Your task to perform on an android device: turn off picture-in-picture Image 0: 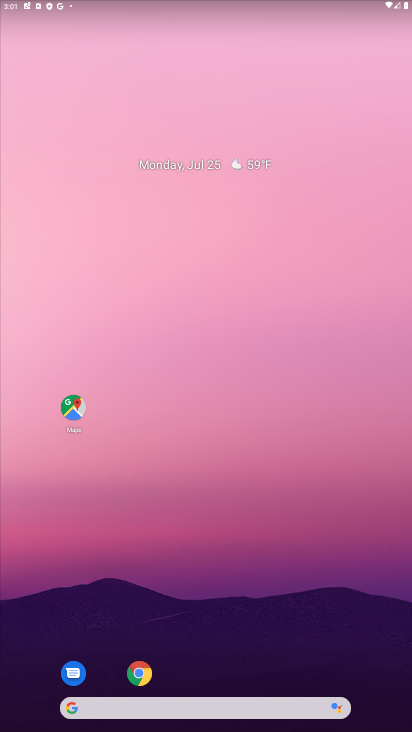
Step 0: click (141, 672)
Your task to perform on an android device: turn off picture-in-picture Image 1: 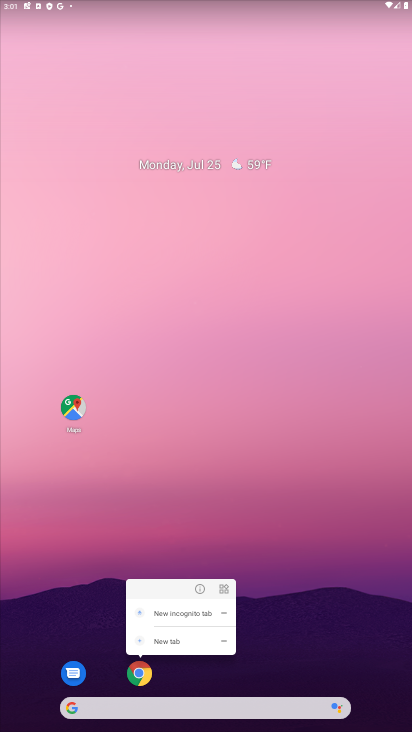
Step 1: click (201, 589)
Your task to perform on an android device: turn off picture-in-picture Image 2: 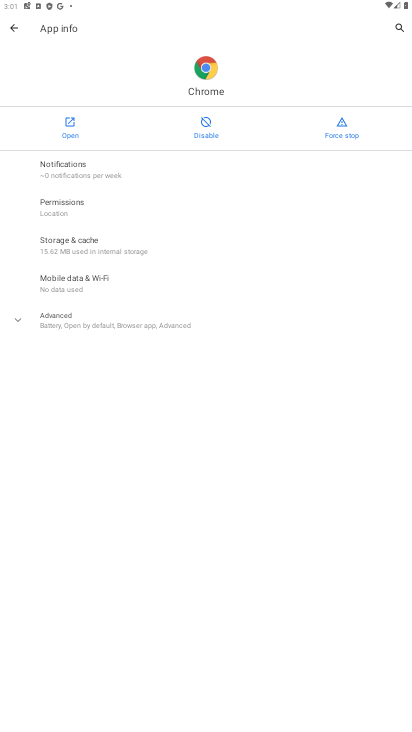
Step 2: click (85, 310)
Your task to perform on an android device: turn off picture-in-picture Image 3: 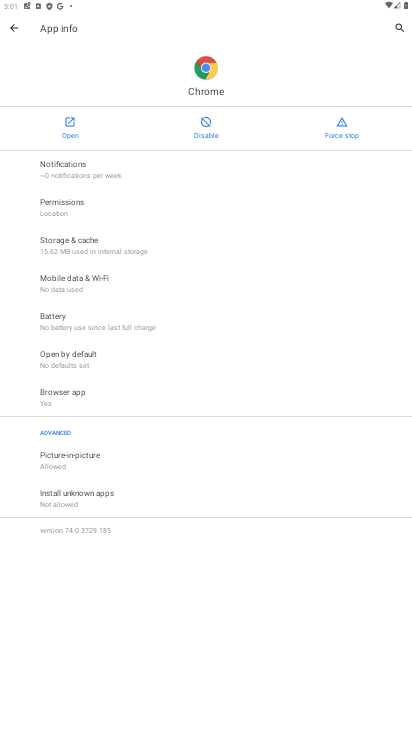
Step 3: click (115, 470)
Your task to perform on an android device: turn off picture-in-picture Image 4: 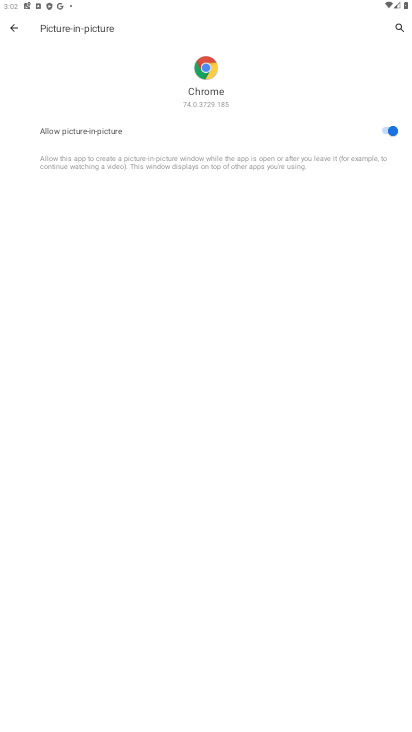
Step 4: click (395, 138)
Your task to perform on an android device: turn off picture-in-picture Image 5: 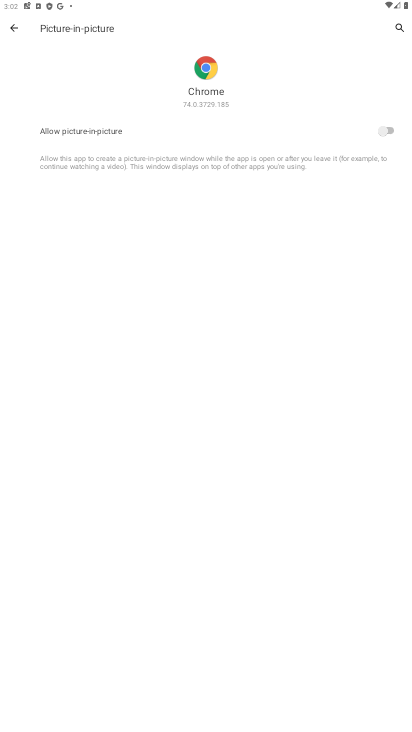
Step 5: task complete